Your task to perform on an android device: toggle javascript in the chrome app Image 0: 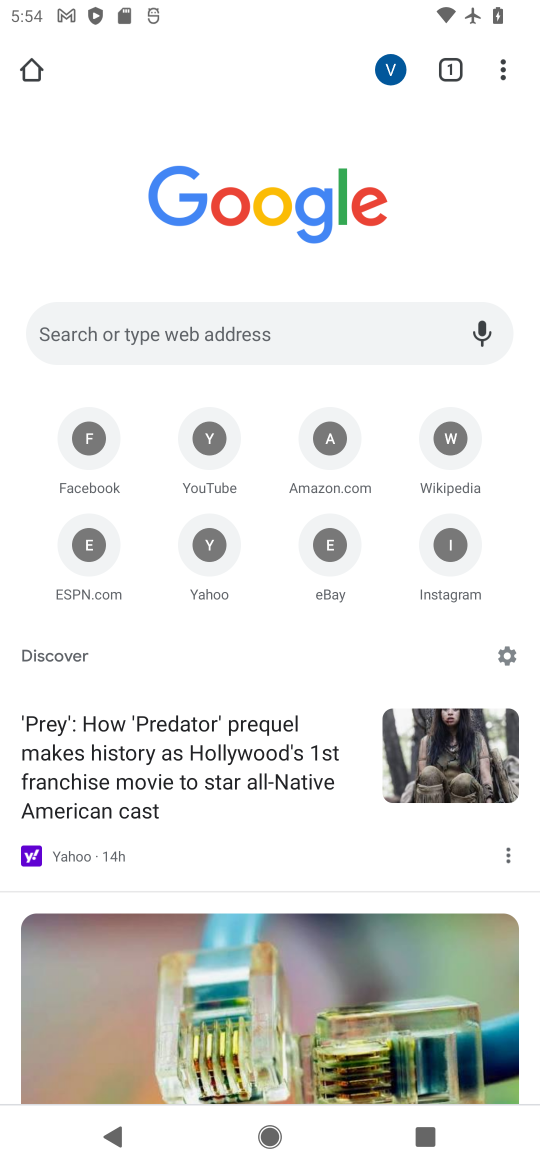
Step 0: press home button
Your task to perform on an android device: toggle javascript in the chrome app Image 1: 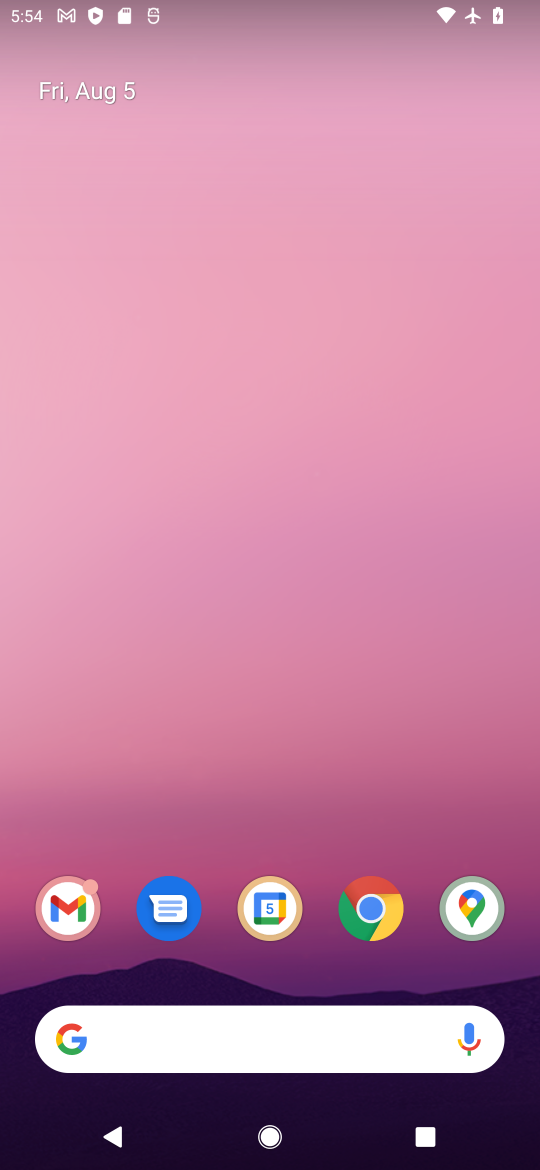
Step 1: click (382, 908)
Your task to perform on an android device: toggle javascript in the chrome app Image 2: 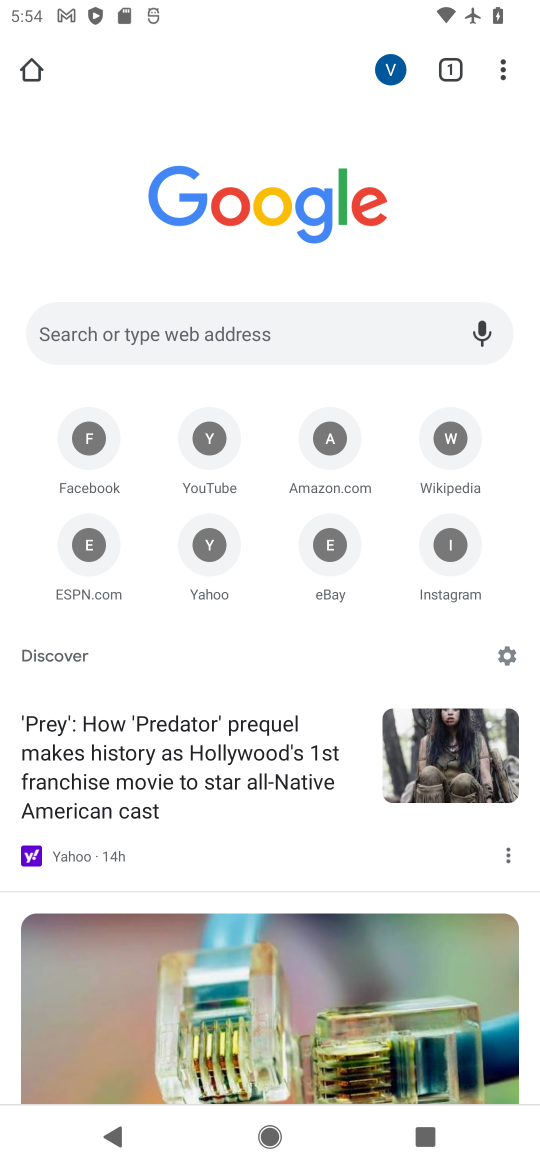
Step 2: click (505, 77)
Your task to perform on an android device: toggle javascript in the chrome app Image 3: 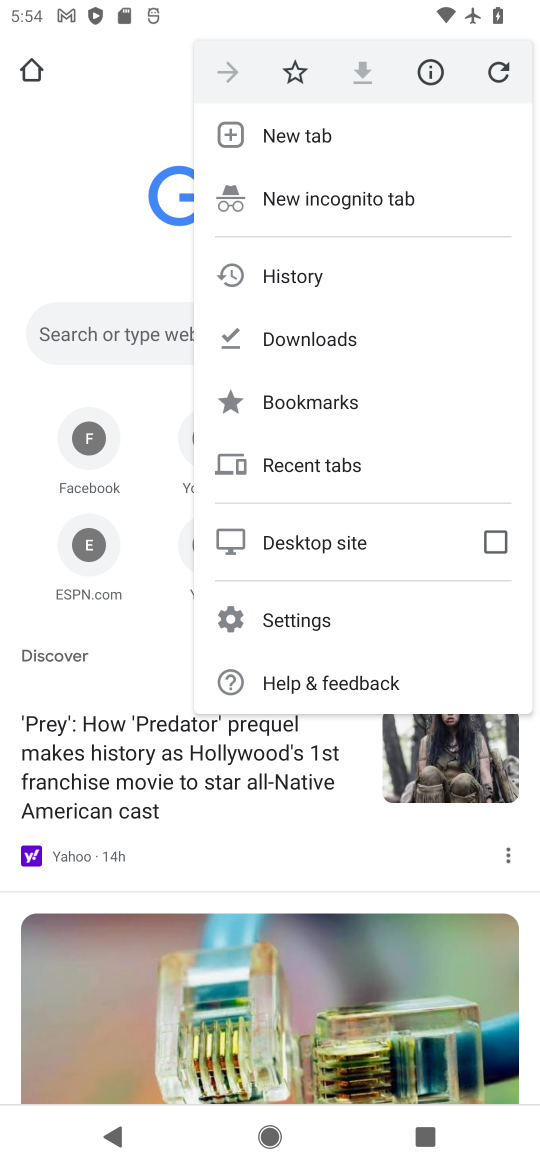
Step 3: click (282, 616)
Your task to perform on an android device: toggle javascript in the chrome app Image 4: 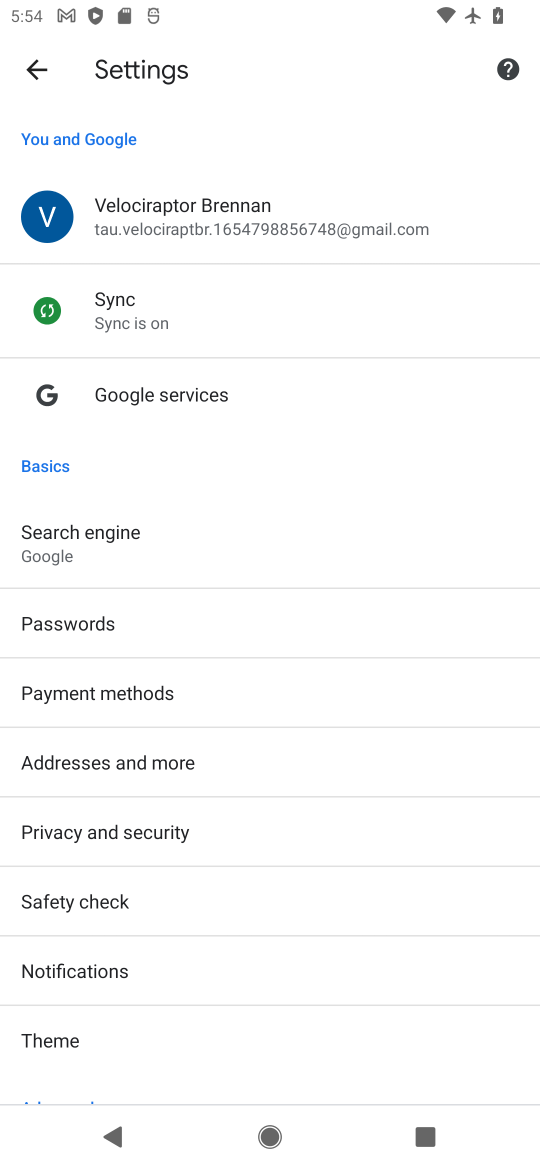
Step 4: drag from (93, 982) to (121, 536)
Your task to perform on an android device: toggle javascript in the chrome app Image 5: 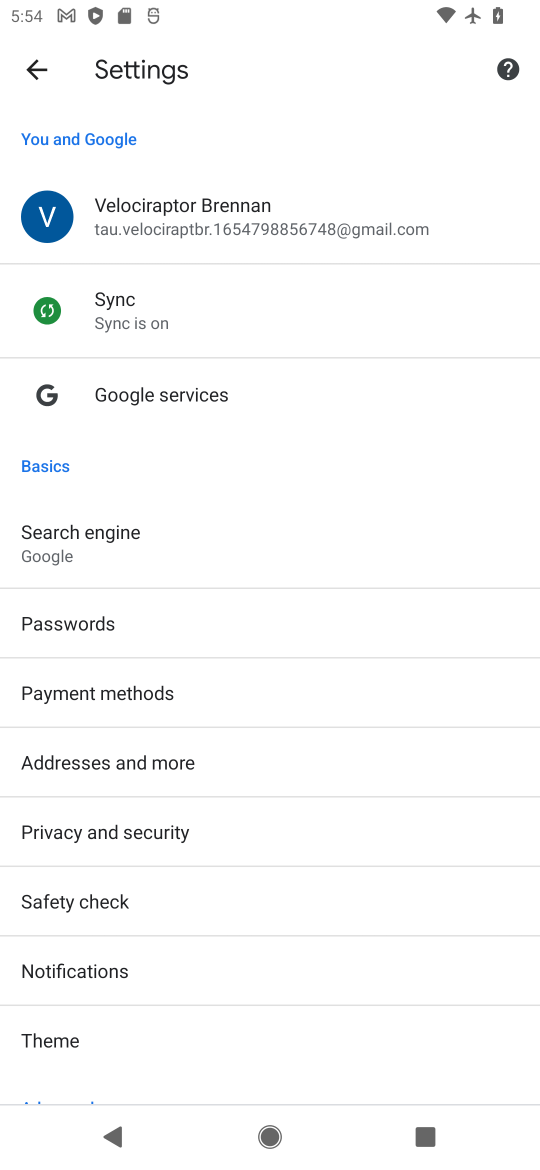
Step 5: drag from (122, 1002) to (123, 653)
Your task to perform on an android device: toggle javascript in the chrome app Image 6: 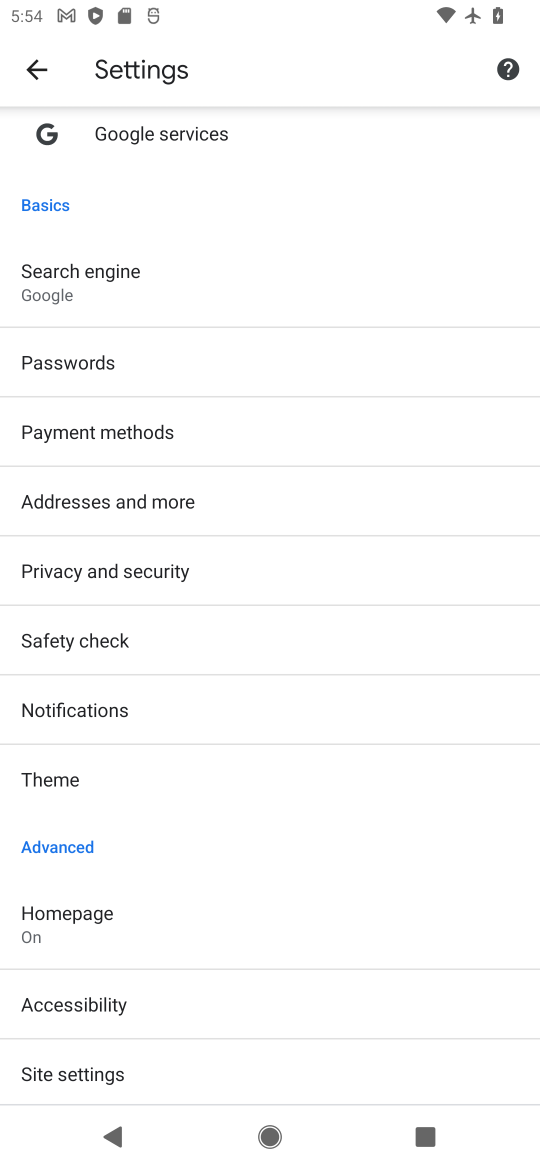
Step 6: click (82, 1088)
Your task to perform on an android device: toggle javascript in the chrome app Image 7: 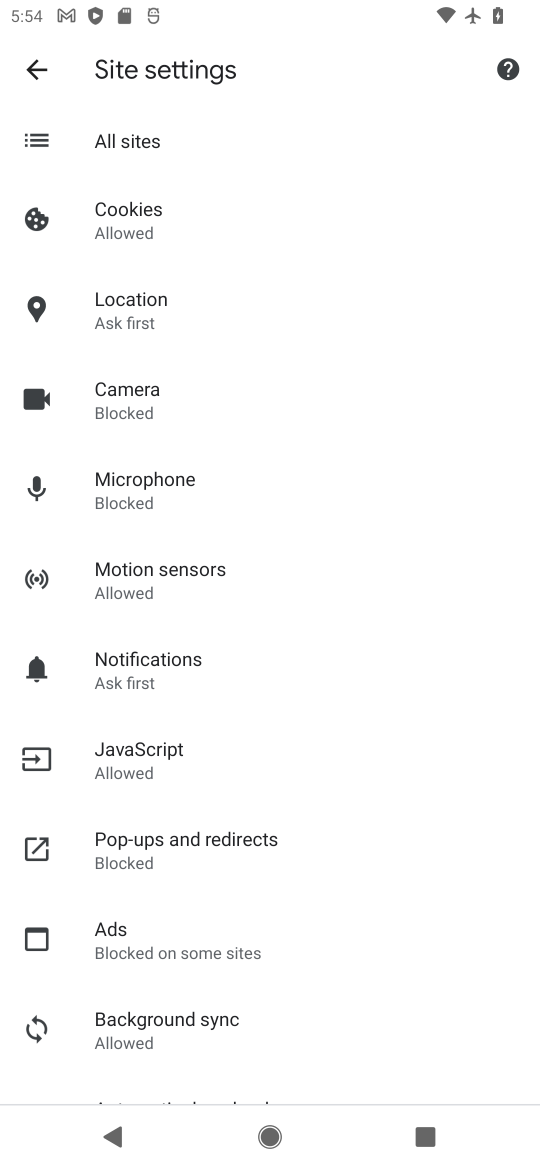
Step 7: click (143, 758)
Your task to perform on an android device: toggle javascript in the chrome app Image 8: 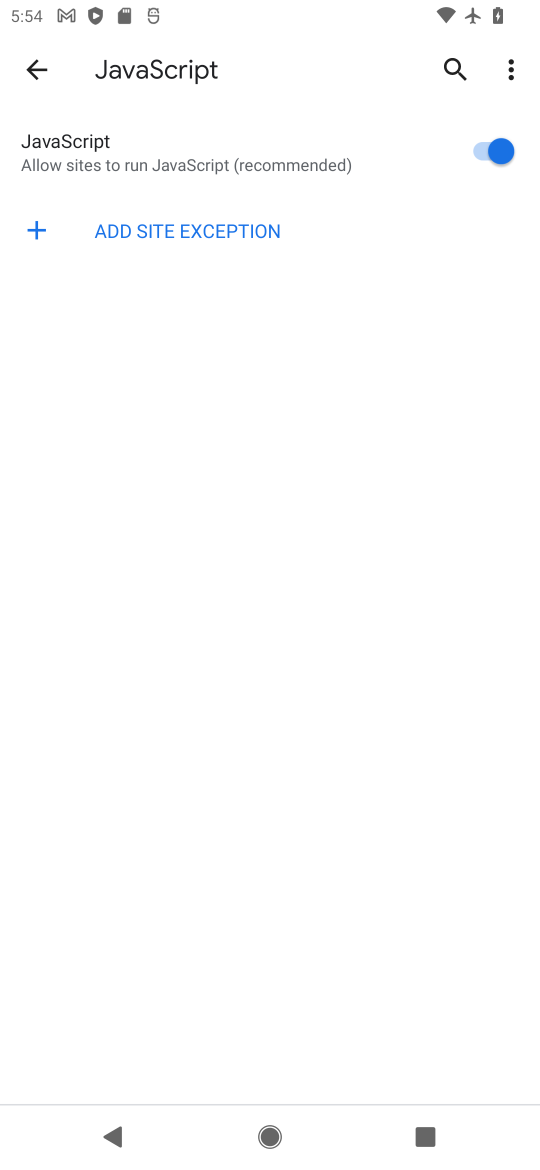
Step 8: click (475, 153)
Your task to perform on an android device: toggle javascript in the chrome app Image 9: 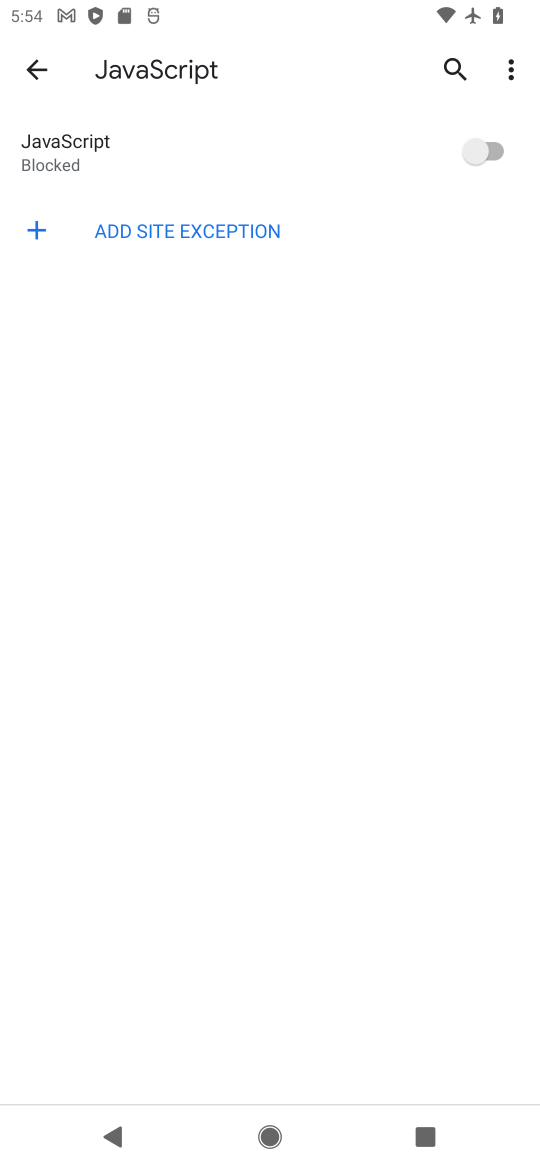
Step 9: task complete